Your task to perform on an android device: check google app version Image 0: 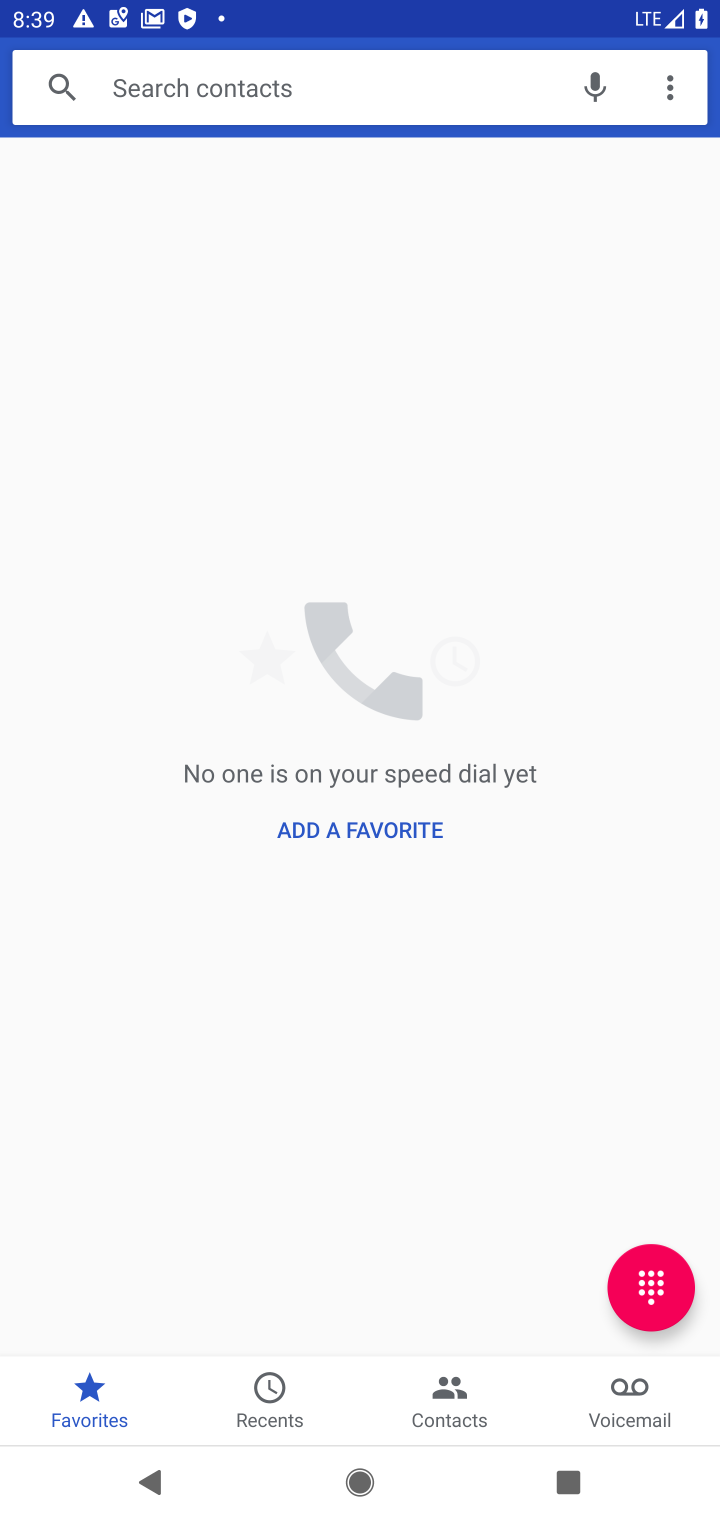
Step 0: press home button
Your task to perform on an android device: check google app version Image 1: 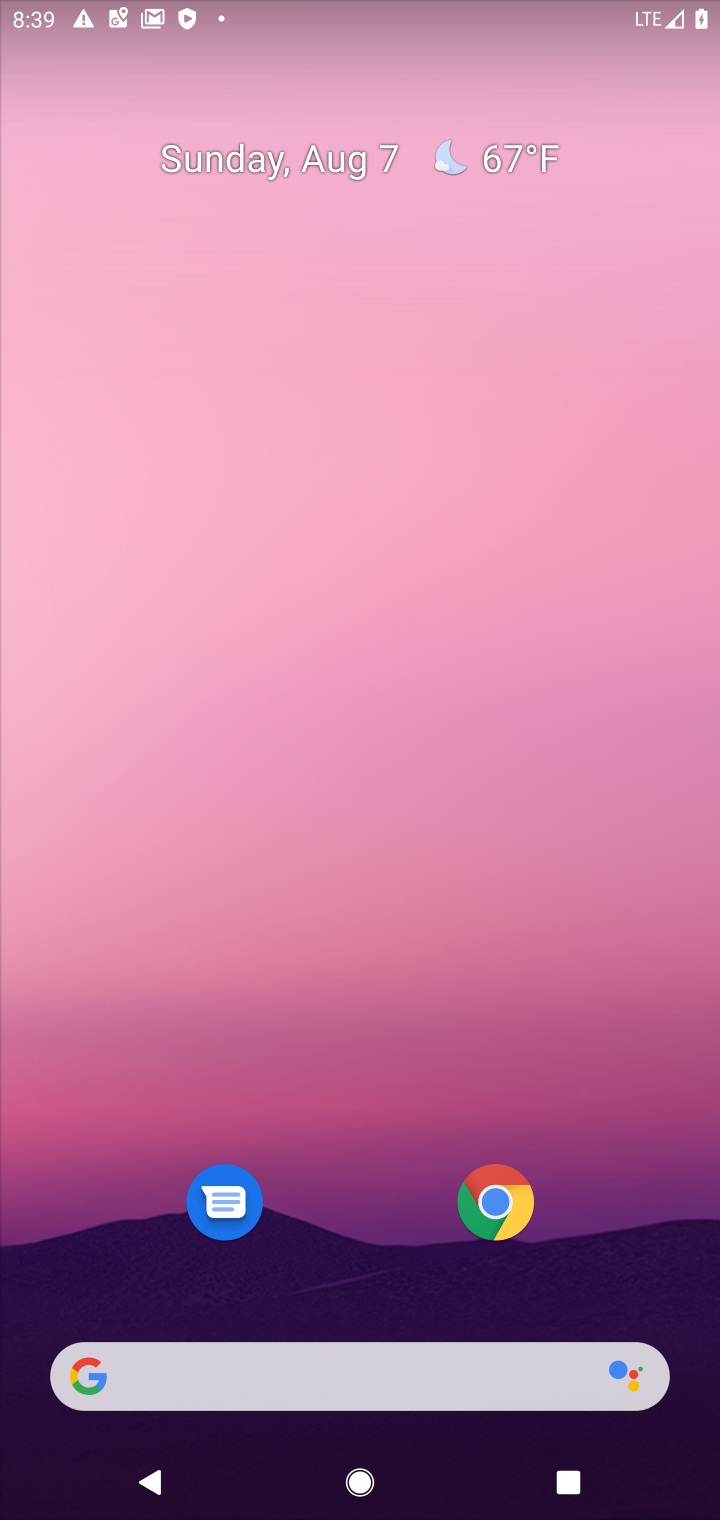
Step 1: drag from (336, 1245) to (334, 514)
Your task to perform on an android device: check google app version Image 2: 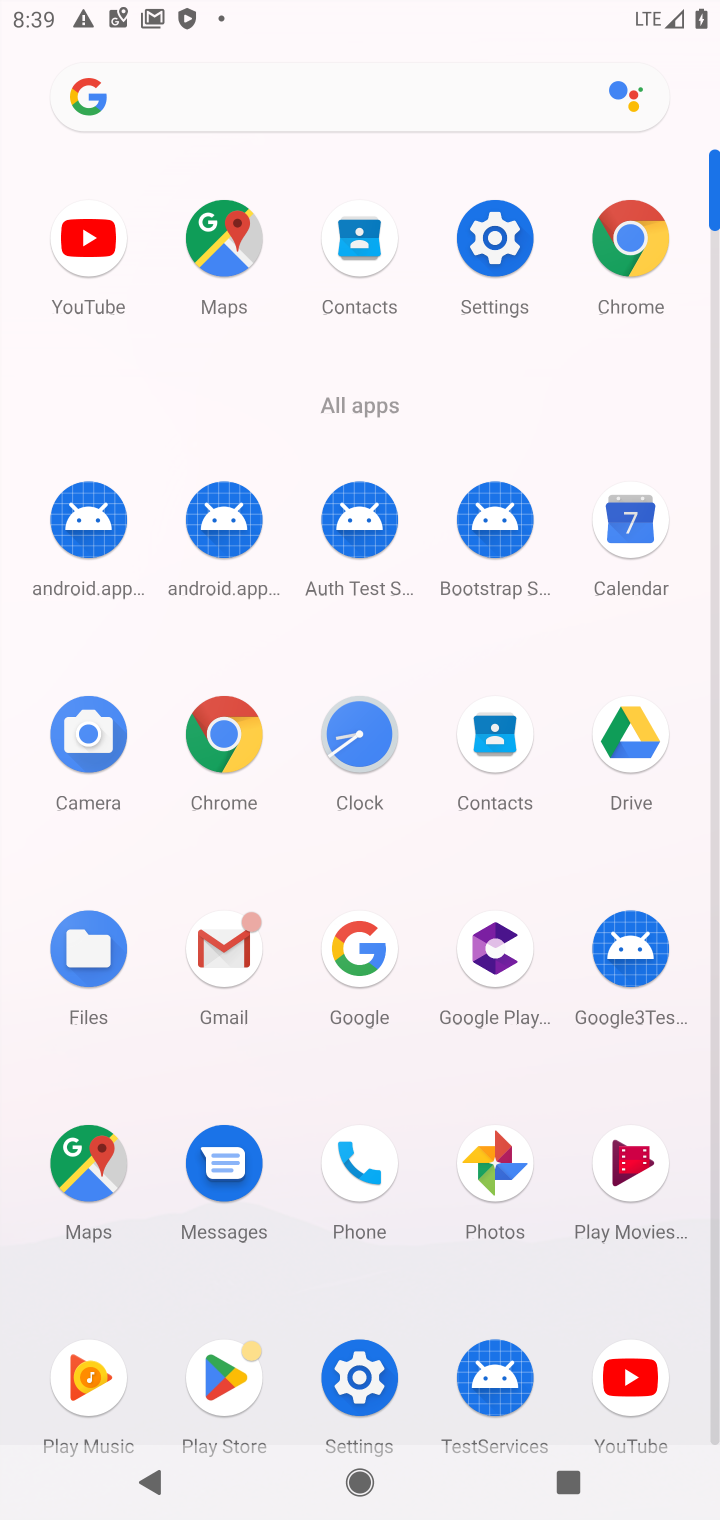
Step 2: click (354, 942)
Your task to perform on an android device: check google app version Image 3: 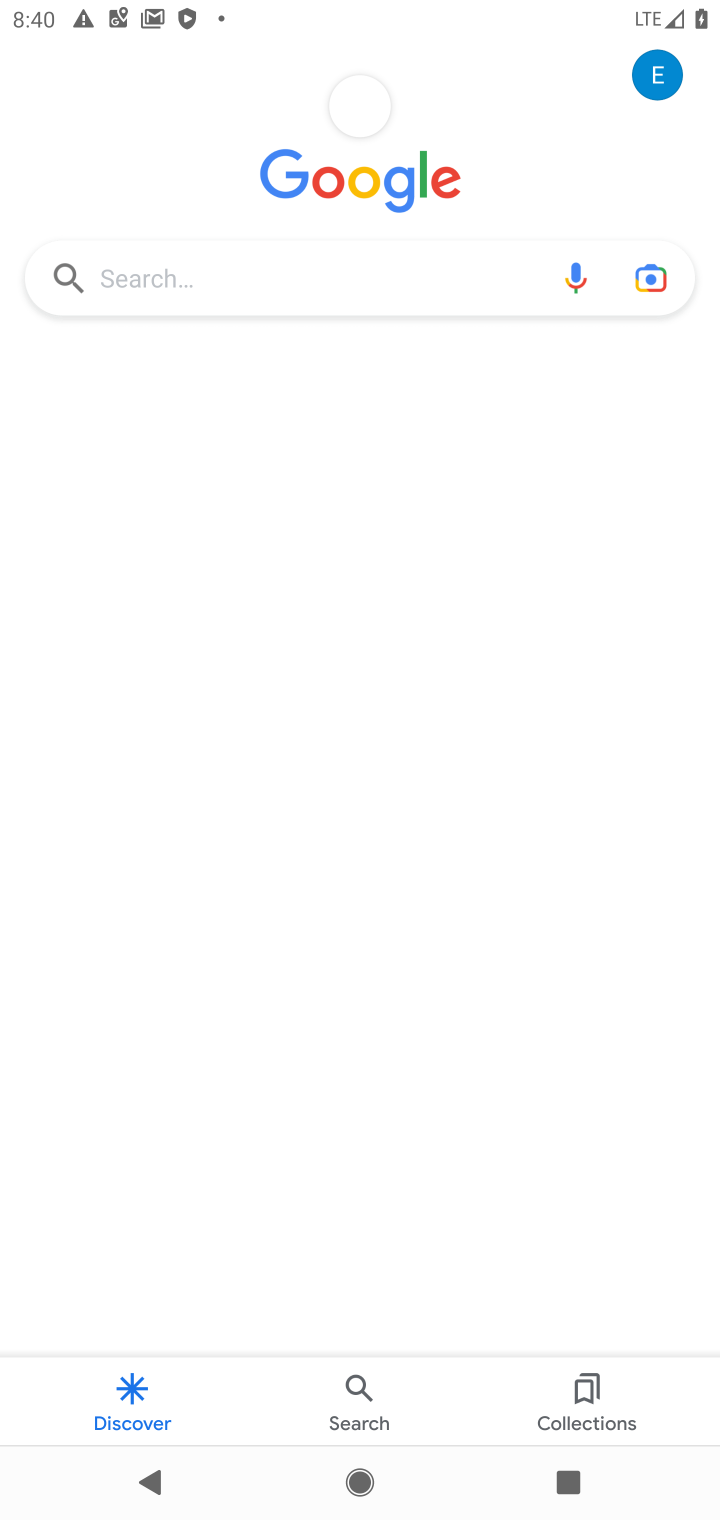
Step 3: click (659, 57)
Your task to perform on an android device: check google app version Image 4: 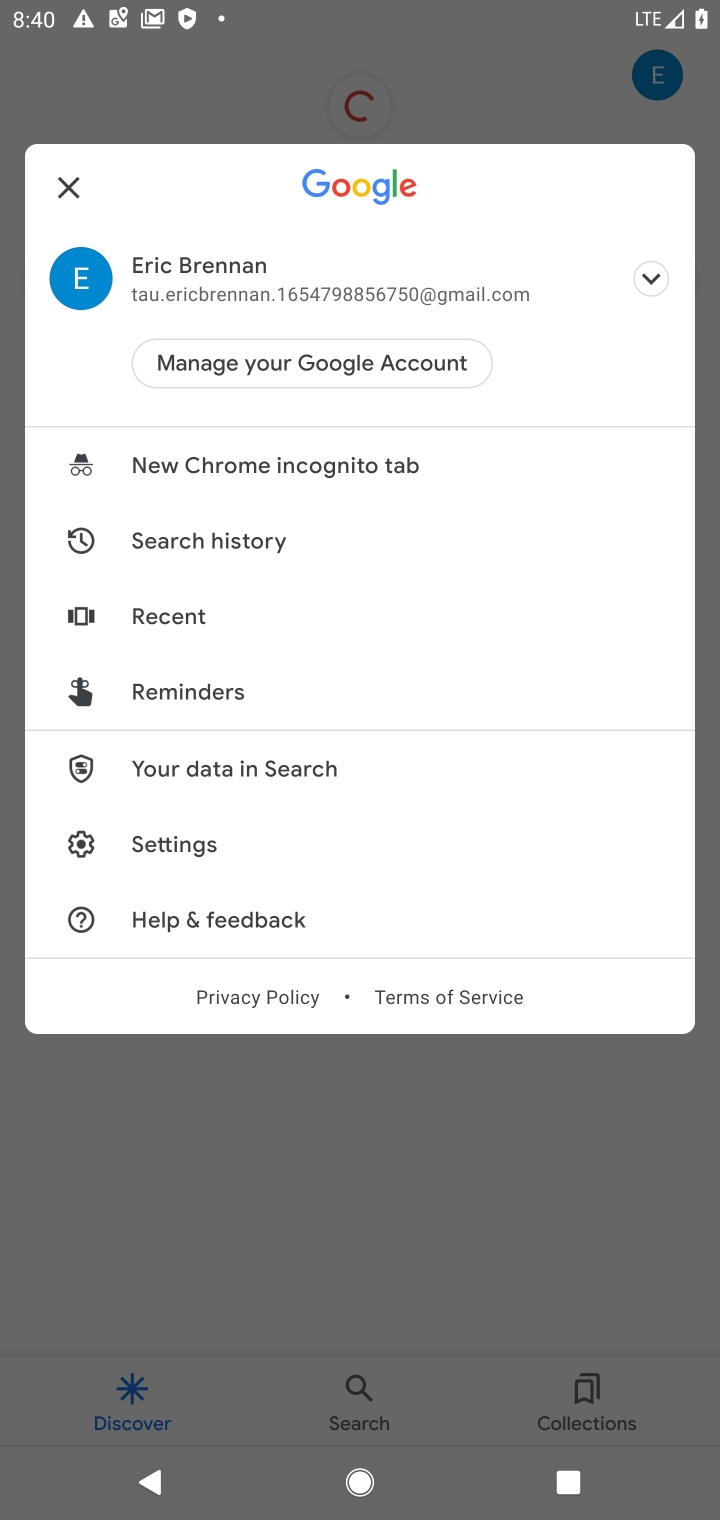
Step 4: click (181, 846)
Your task to perform on an android device: check google app version Image 5: 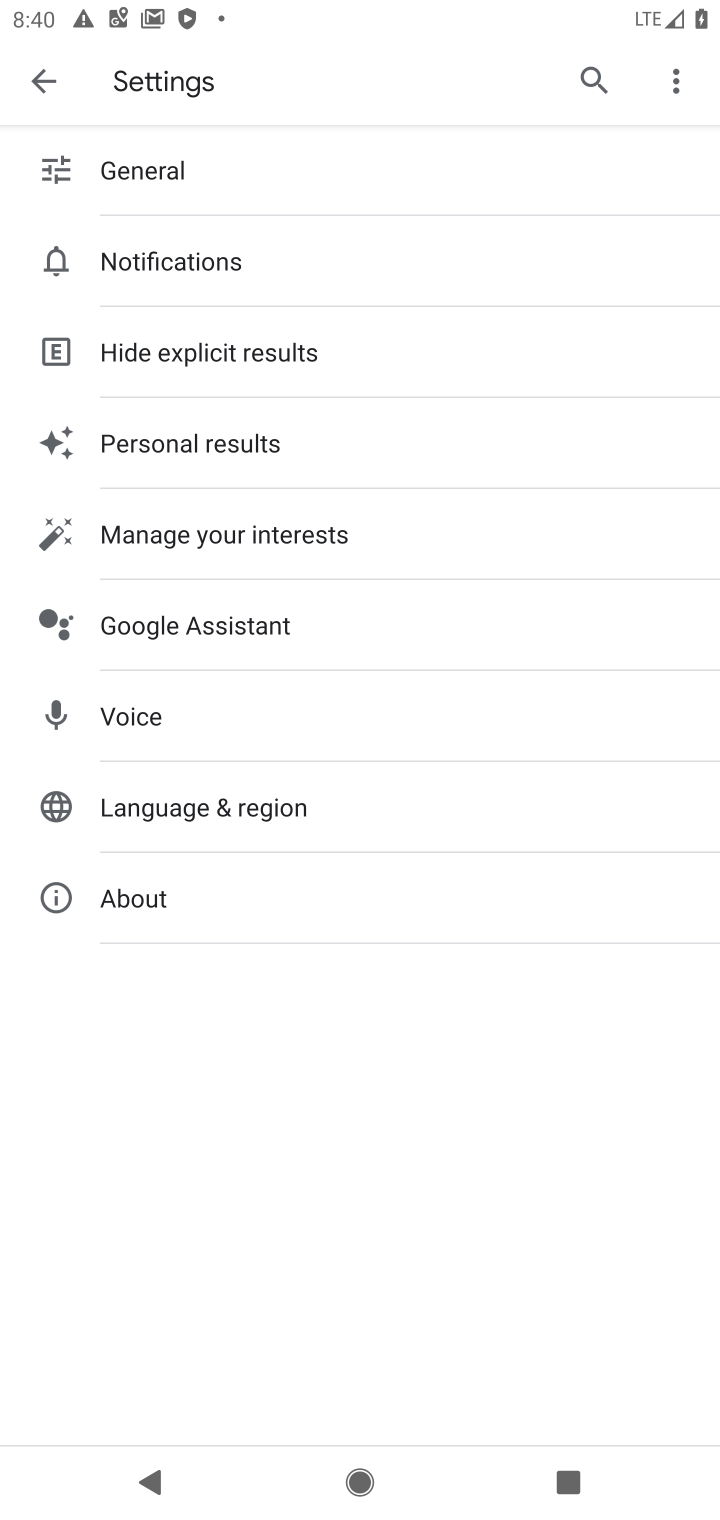
Step 5: click (215, 886)
Your task to perform on an android device: check google app version Image 6: 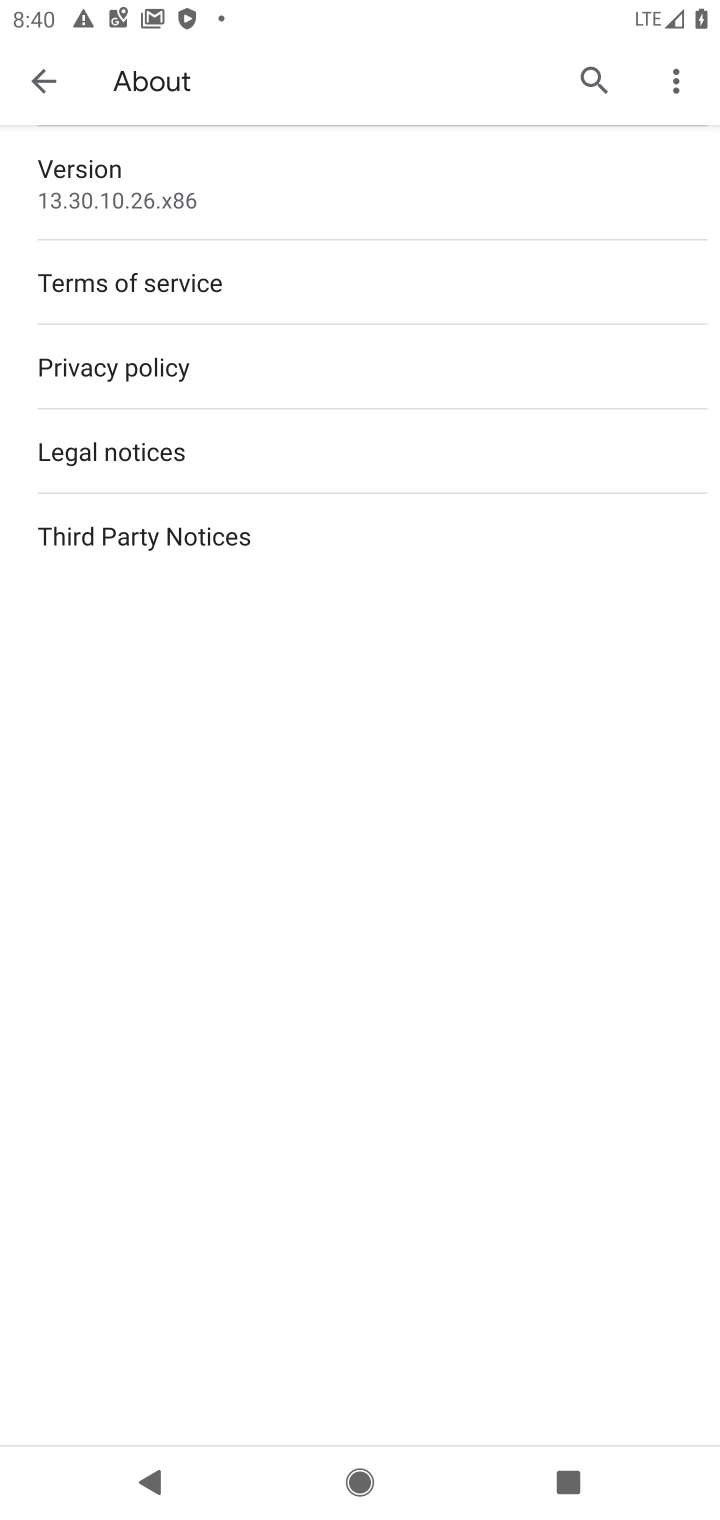
Step 6: click (328, 164)
Your task to perform on an android device: check google app version Image 7: 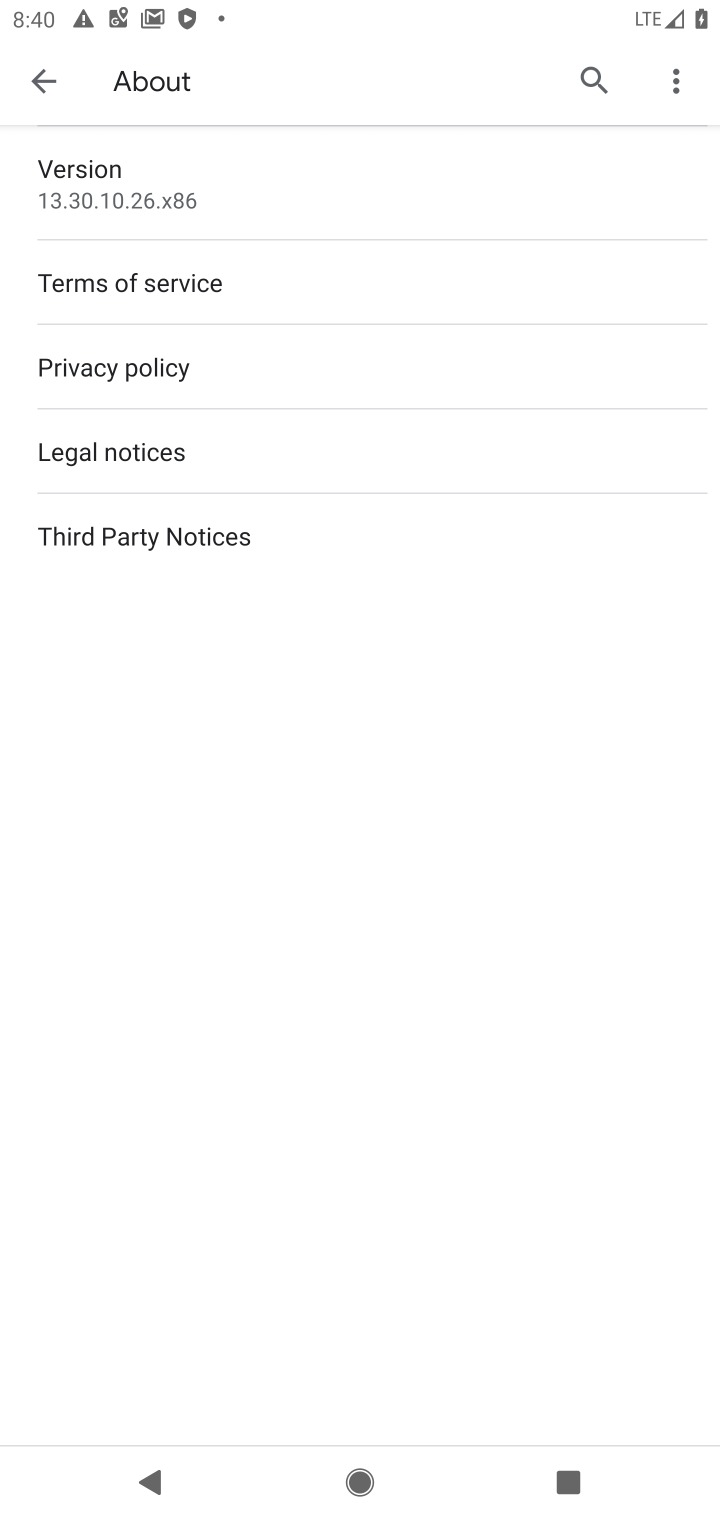
Step 7: task complete